Your task to perform on an android device: Go to eBay Image 0: 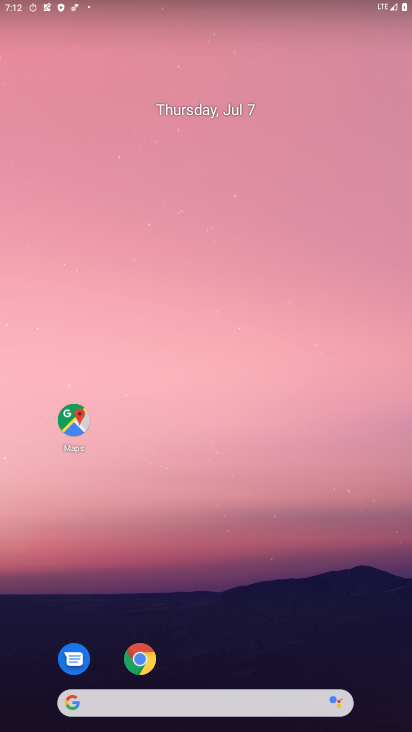
Step 0: drag from (380, 653) to (286, 133)
Your task to perform on an android device: Go to eBay Image 1: 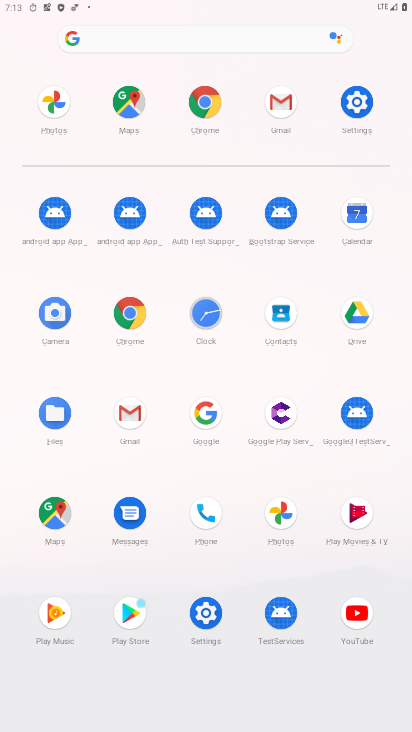
Step 1: click (193, 406)
Your task to perform on an android device: Go to eBay Image 2: 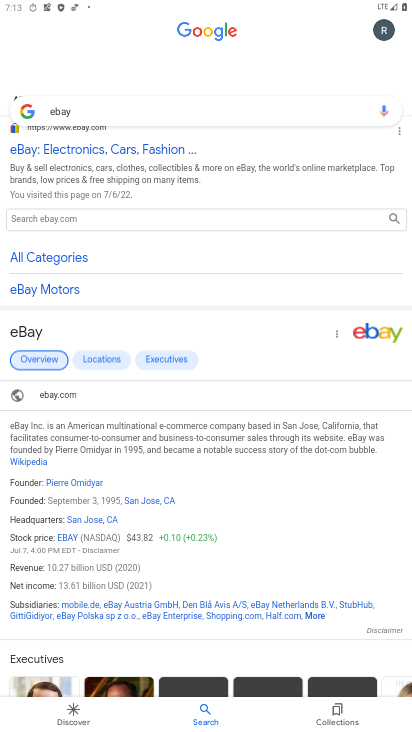
Step 2: task complete